Your task to perform on an android device: change the clock display to show seconds Image 0: 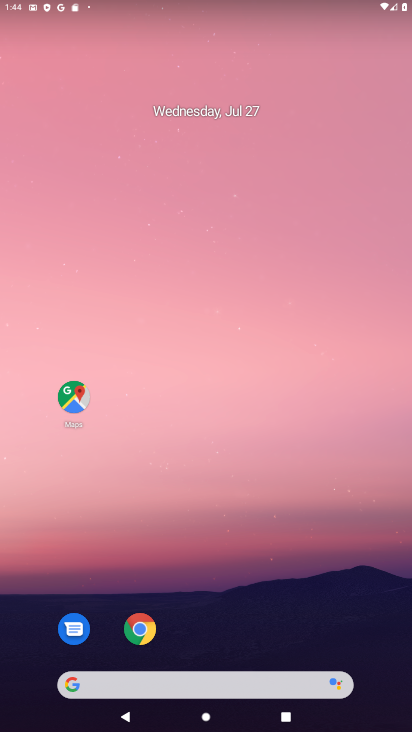
Step 0: drag from (220, 643) to (133, 159)
Your task to perform on an android device: change the clock display to show seconds Image 1: 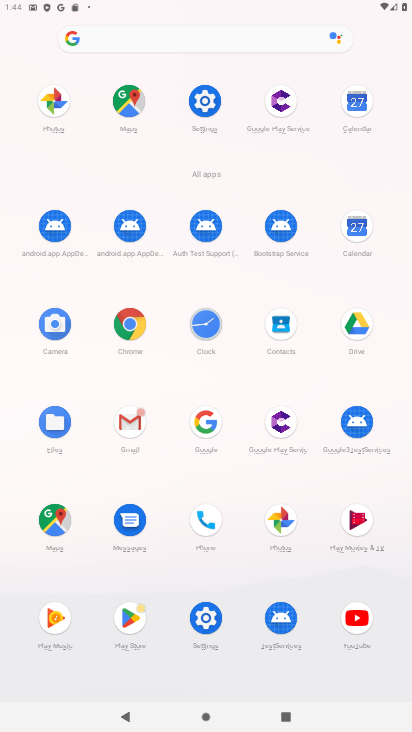
Step 1: click (213, 343)
Your task to perform on an android device: change the clock display to show seconds Image 2: 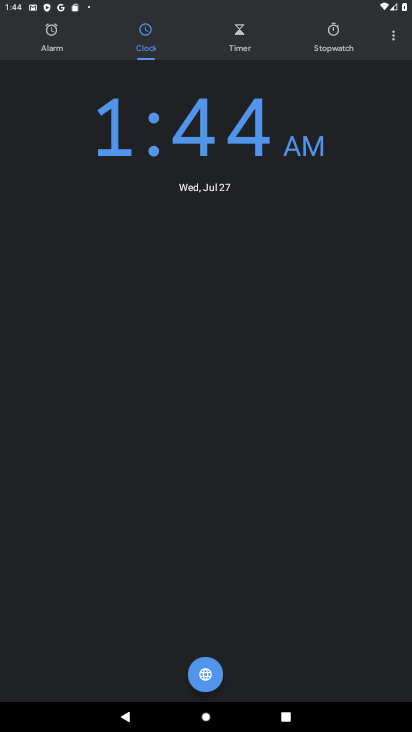
Step 2: click (392, 36)
Your task to perform on an android device: change the clock display to show seconds Image 3: 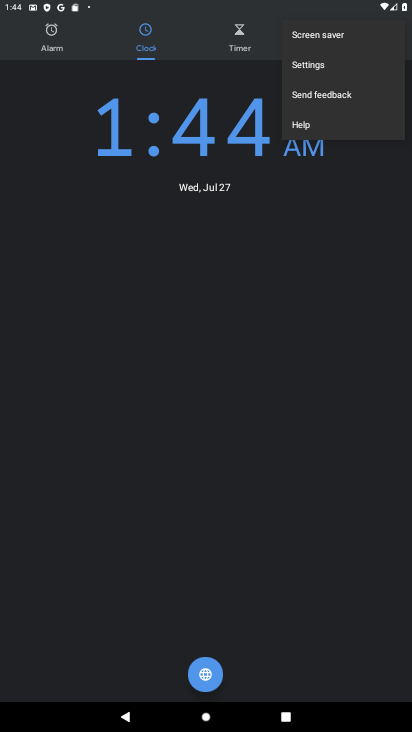
Step 3: click (298, 75)
Your task to perform on an android device: change the clock display to show seconds Image 4: 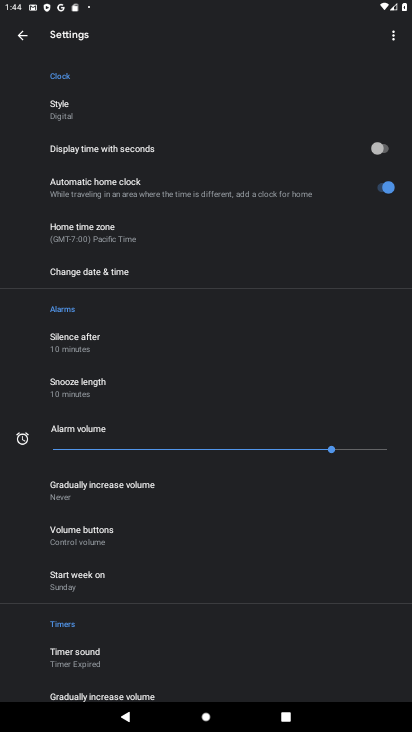
Step 4: click (124, 267)
Your task to perform on an android device: change the clock display to show seconds Image 5: 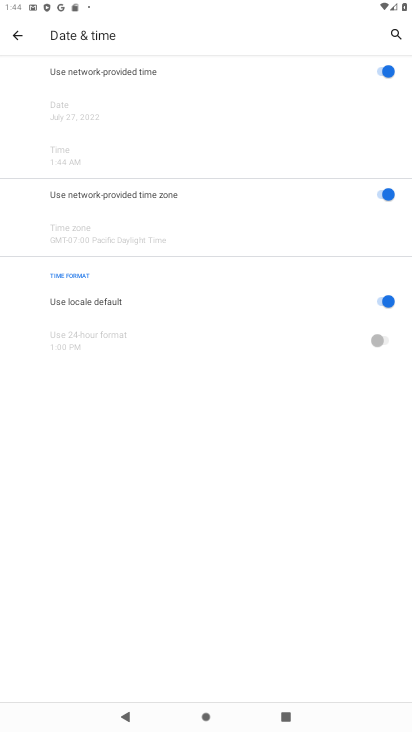
Step 5: task complete